Your task to perform on an android device: see creations saved in the google photos Image 0: 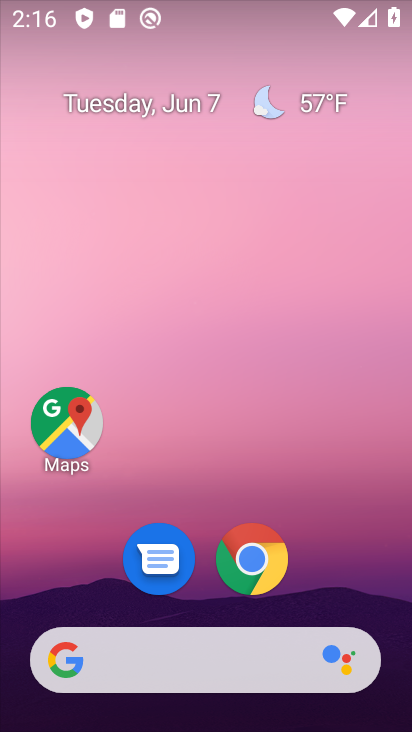
Step 0: drag from (346, 592) to (176, 20)
Your task to perform on an android device: see creations saved in the google photos Image 1: 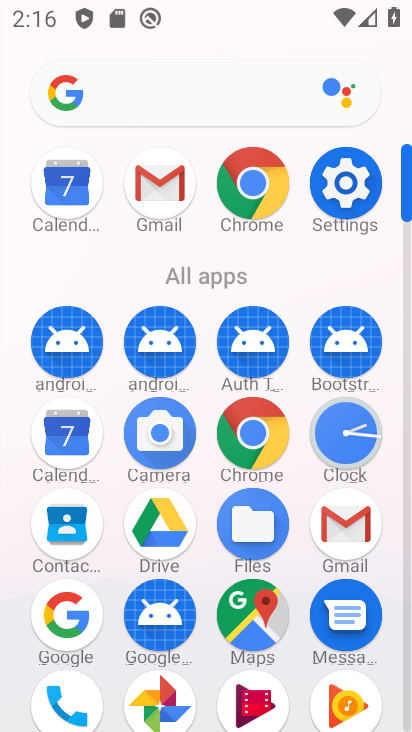
Step 1: drag from (17, 616) to (27, 306)
Your task to perform on an android device: see creations saved in the google photos Image 2: 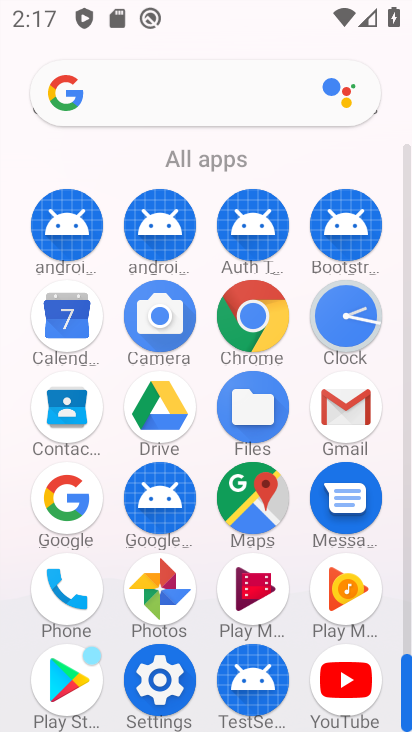
Step 2: click (158, 590)
Your task to perform on an android device: see creations saved in the google photos Image 3: 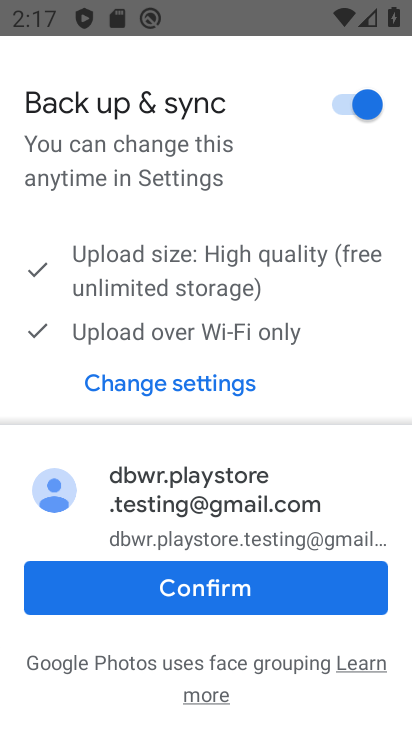
Step 3: click (207, 591)
Your task to perform on an android device: see creations saved in the google photos Image 4: 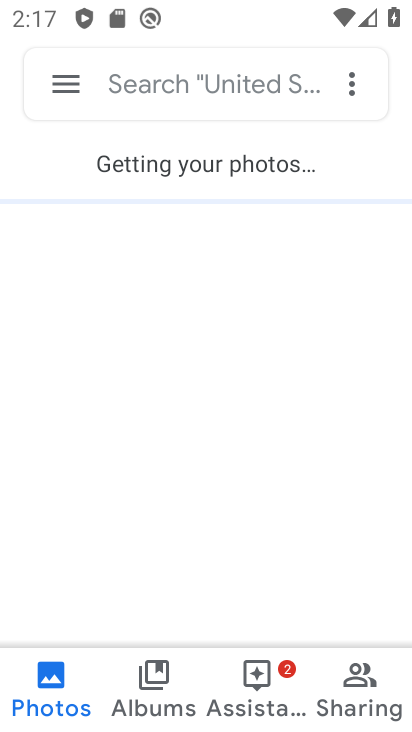
Step 4: task complete